Your task to perform on an android device: Go to Yahoo.com Image 0: 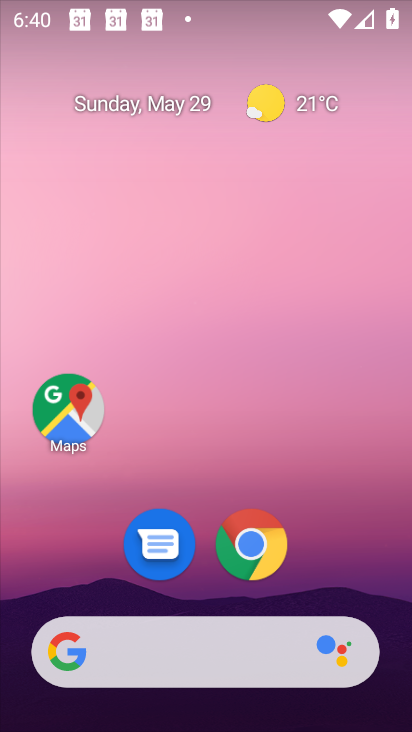
Step 0: click (246, 548)
Your task to perform on an android device: Go to Yahoo.com Image 1: 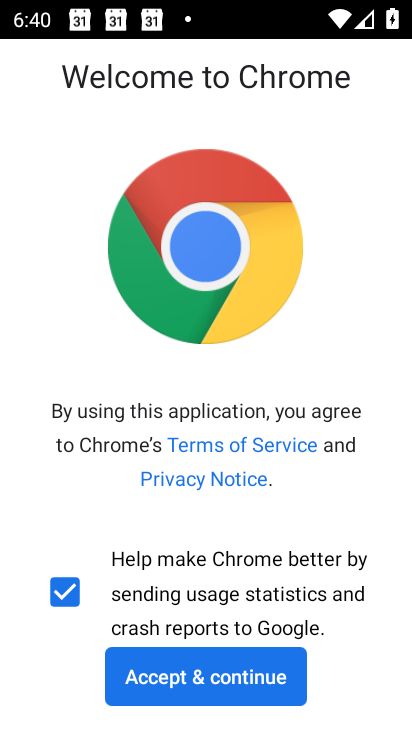
Step 1: click (187, 671)
Your task to perform on an android device: Go to Yahoo.com Image 2: 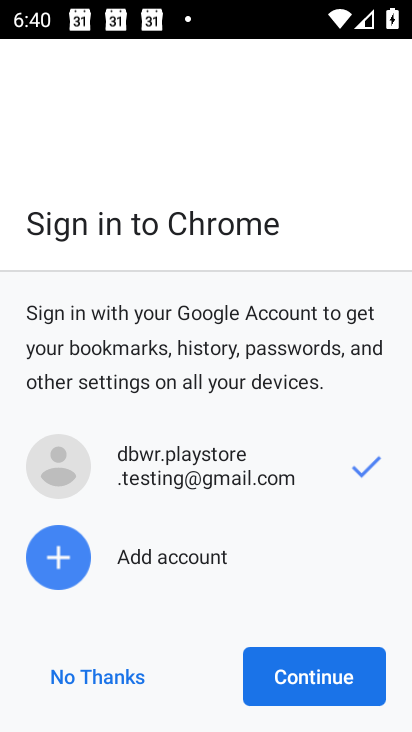
Step 2: click (297, 673)
Your task to perform on an android device: Go to Yahoo.com Image 3: 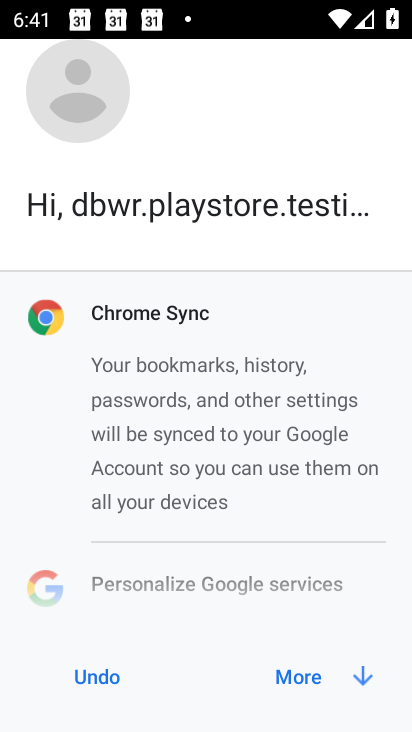
Step 3: click (348, 666)
Your task to perform on an android device: Go to Yahoo.com Image 4: 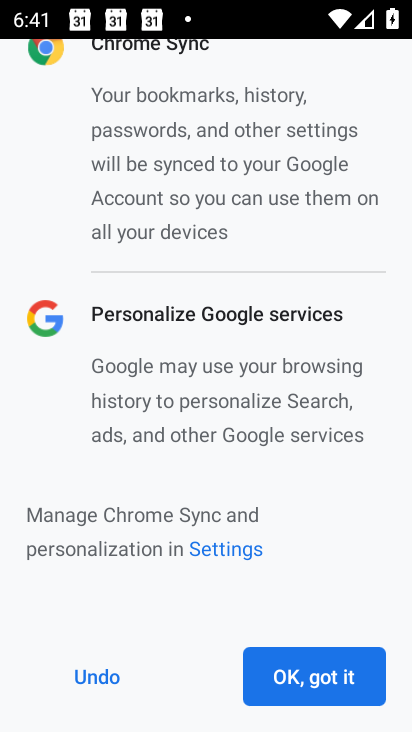
Step 4: click (333, 679)
Your task to perform on an android device: Go to Yahoo.com Image 5: 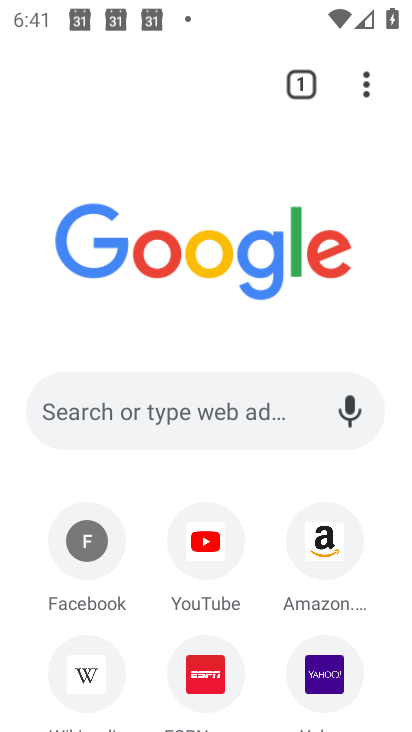
Step 5: click (321, 682)
Your task to perform on an android device: Go to Yahoo.com Image 6: 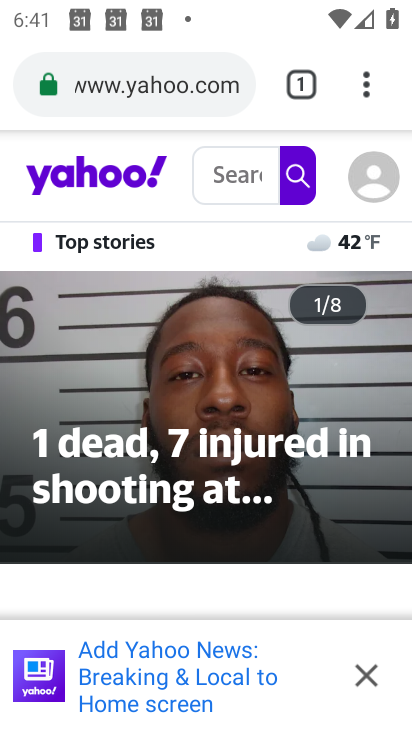
Step 6: task complete